Your task to perform on an android device: Open display settings Image 0: 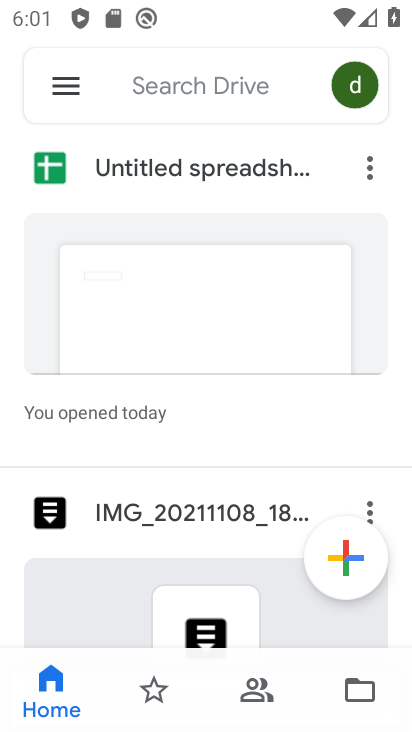
Step 0: press home button
Your task to perform on an android device: Open display settings Image 1: 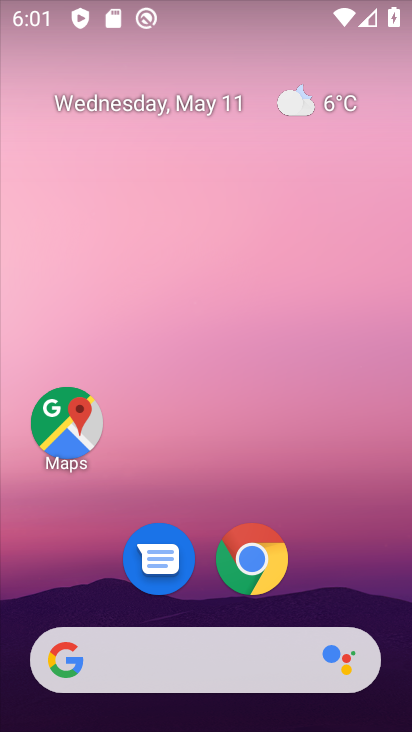
Step 1: drag from (340, 398) to (366, 92)
Your task to perform on an android device: Open display settings Image 2: 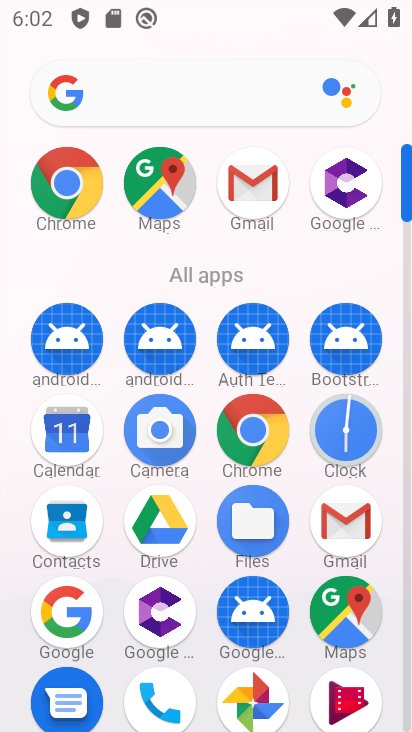
Step 2: click (409, 263)
Your task to perform on an android device: Open display settings Image 3: 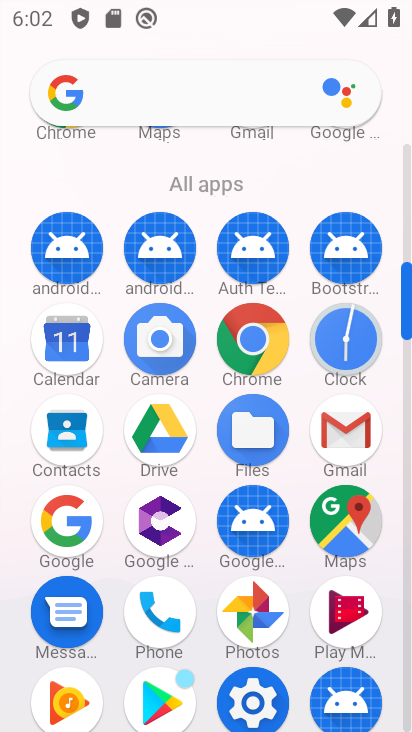
Step 3: click (258, 686)
Your task to perform on an android device: Open display settings Image 4: 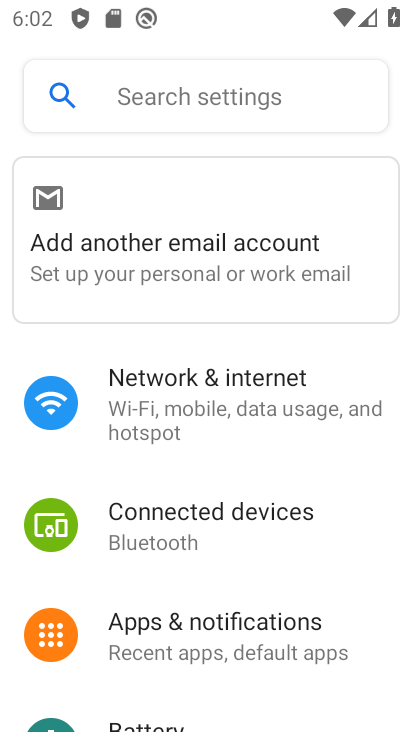
Step 4: drag from (186, 646) to (224, 266)
Your task to perform on an android device: Open display settings Image 5: 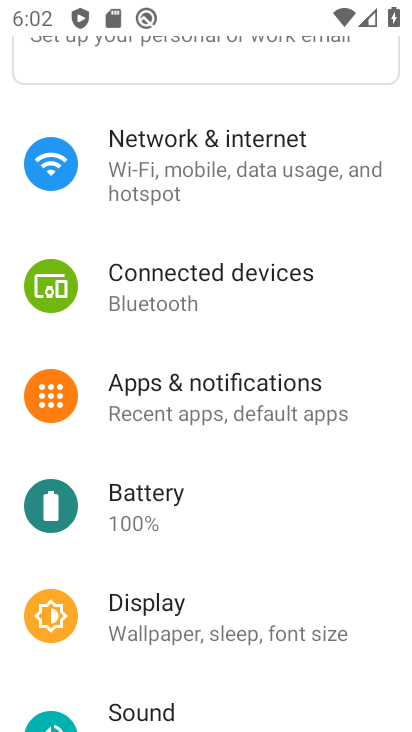
Step 5: click (184, 629)
Your task to perform on an android device: Open display settings Image 6: 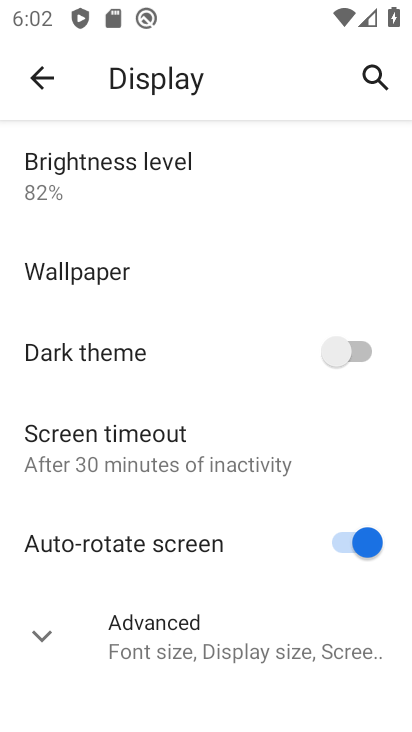
Step 6: task complete